Your task to perform on an android device: Go to Maps Image 0: 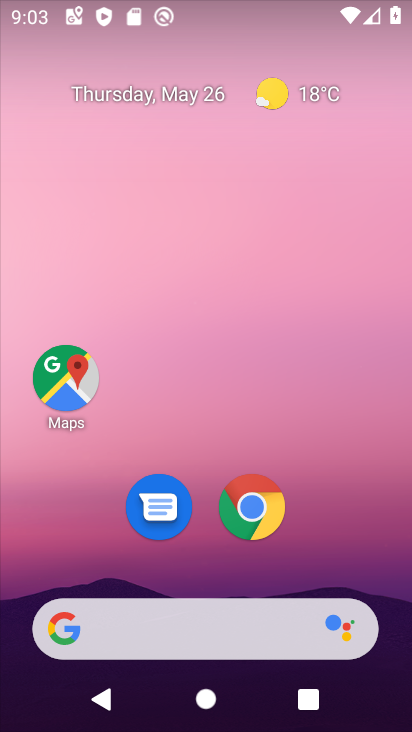
Step 0: press home button
Your task to perform on an android device: Go to Maps Image 1: 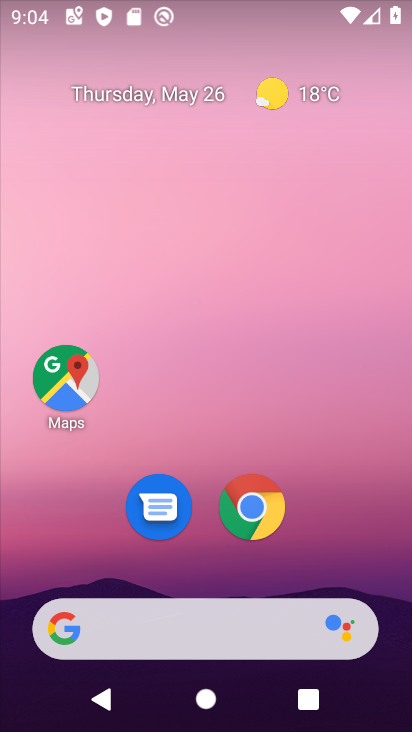
Step 1: drag from (260, 639) to (202, 108)
Your task to perform on an android device: Go to Maps Image 2: 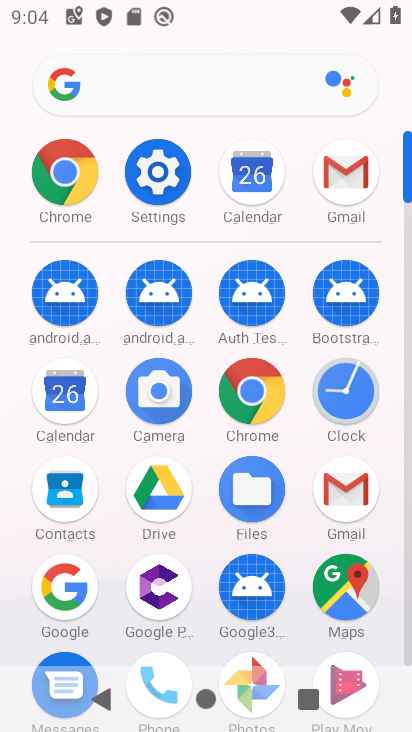
Step 2: click (346, 568)
Your task to perform on an android device: Go to Maps Image 3: 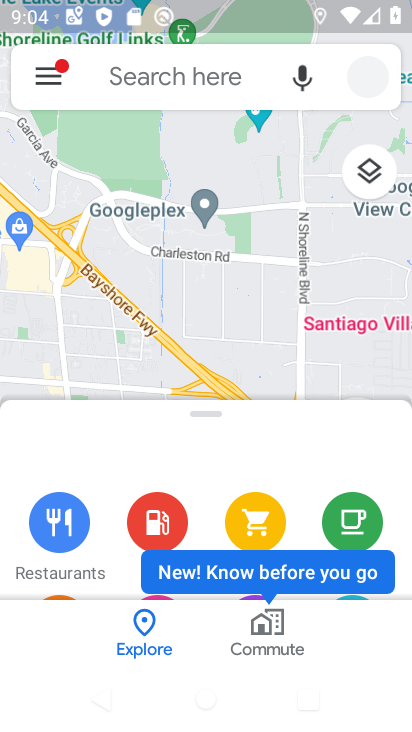
Step 3: click (50, 91)
Your task to perform on an android device: Go to Maps Image 4: 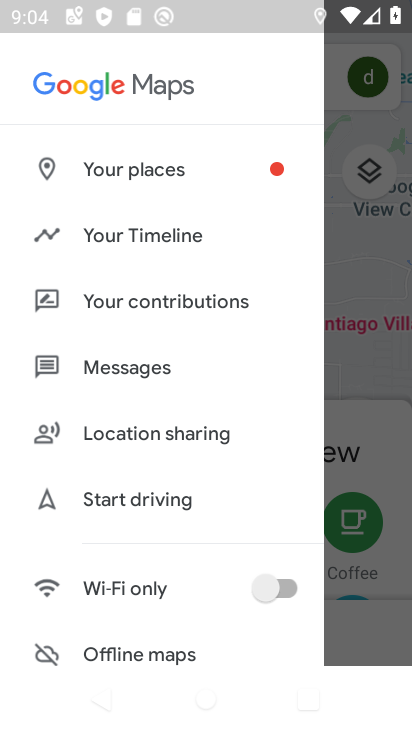
Step 4: drag from (148, 607) to (165, 494)
Your task to perform on an android device: Go to Maps Image 5: 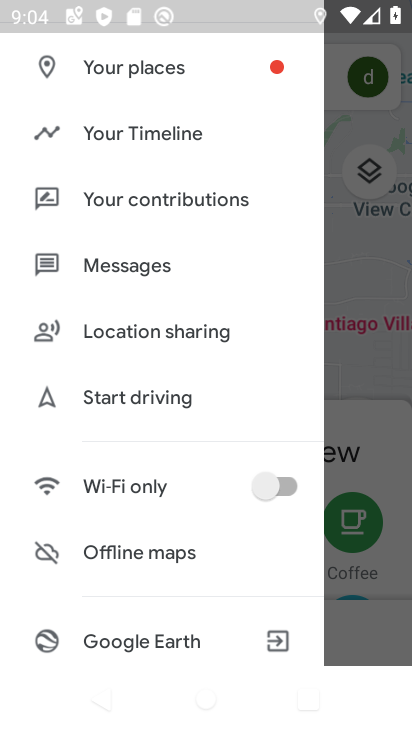
Step 5: drag from (139, 310) to (167, 464)
Your task to perform on an android device: Go to Maps Image 6: 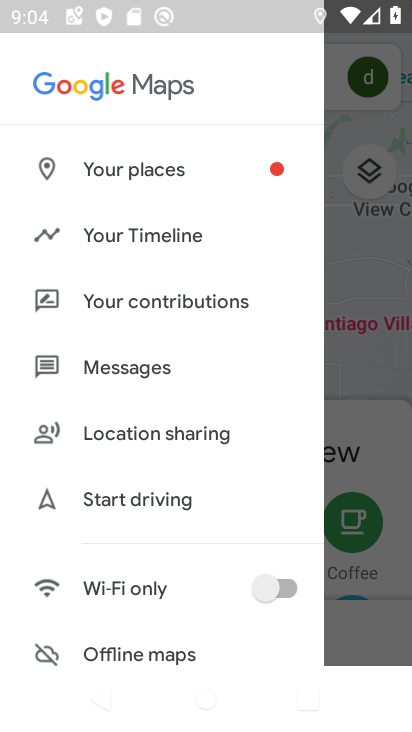
Step 6: click (387, 317)
Your task to perform on an android device: Go to Maps Image 7: 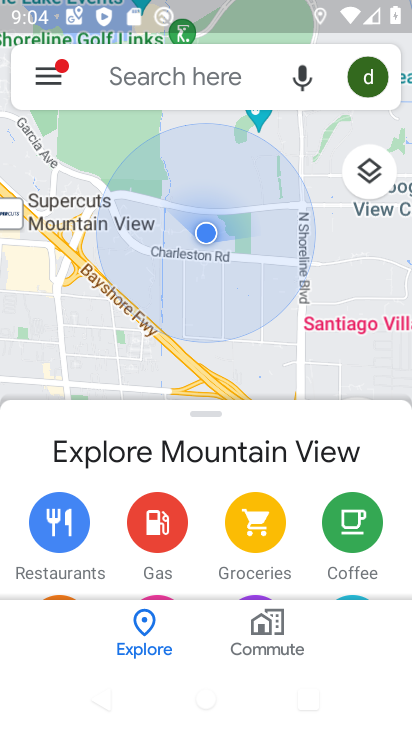
Step 7: task complete